Your task to perform on an android device: Open Google Image 0: 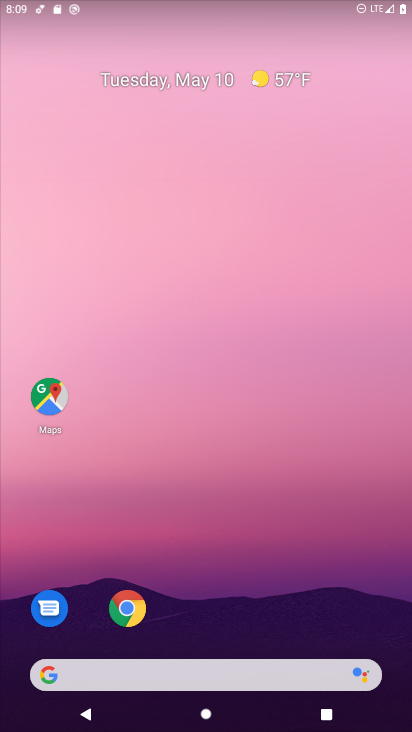
Step 0: drag from (336, 622) to (233, 61)
Your task to perform on an android device: Open Google Image 1: 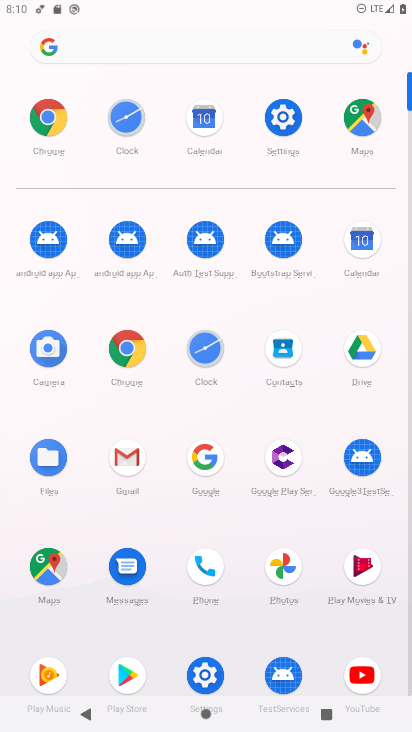
Step 1: click (210, 463)
Your task to perform on an android device: Open Google Image 2: 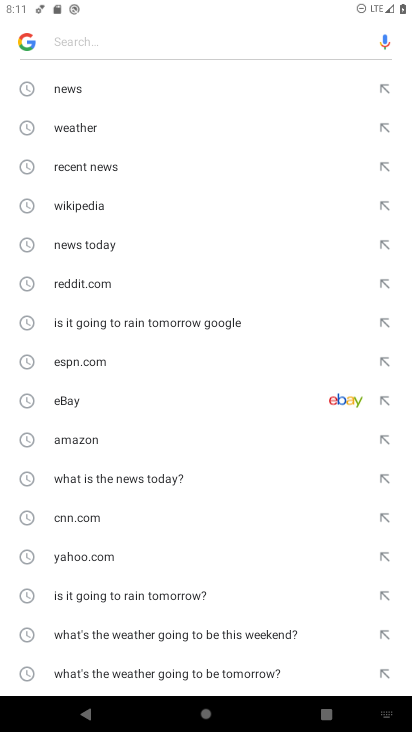
Step 2: task complete